Your task to perform on an android device: change alarm snooze length Image 0: 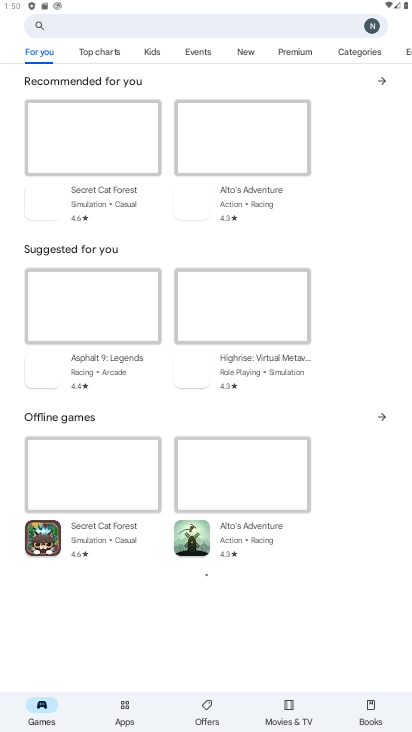
Step 0: drag from (219, 687) to (207, 91)
Your task to perform on an android device: change alarm snooze length Image 1: 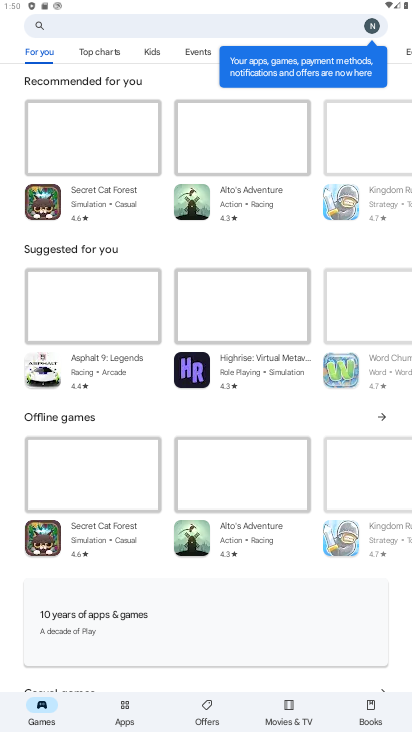
Step 1: press home button
Your task to perform on an android device: change alarm snooze length Image 2: 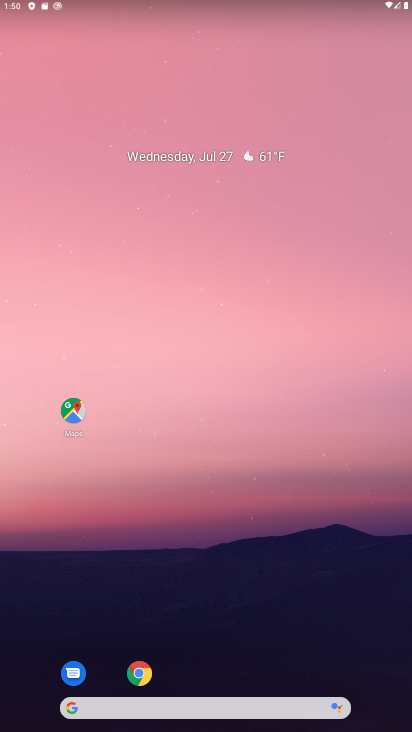
Step 2: drag from (193, 665) to (176, 156)
Your task to perform on an android device: change alarm snooze length Image 3: 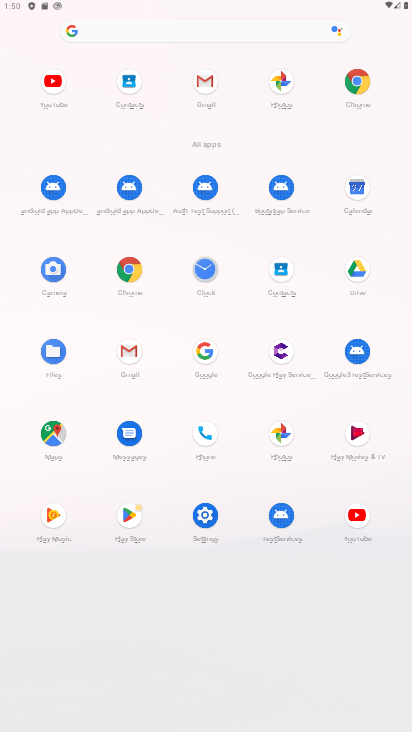
Step 3: click (205, 281)
Your task to perform on an android device: change alarm snooze length Image 4: 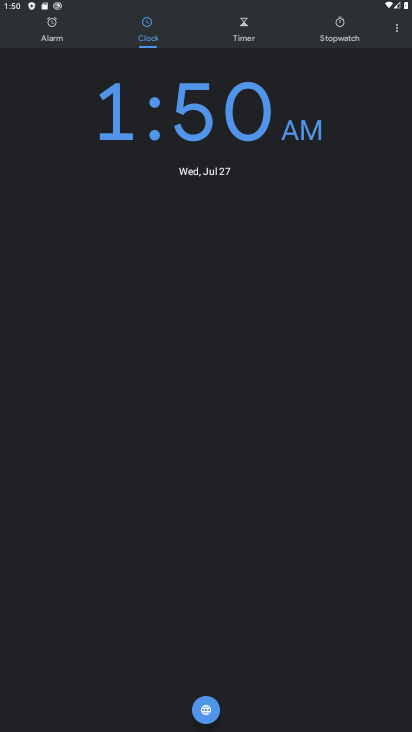
Step 4: click (409, 32)
Your task to perform on an android device: change alarm snooze length Image 5: 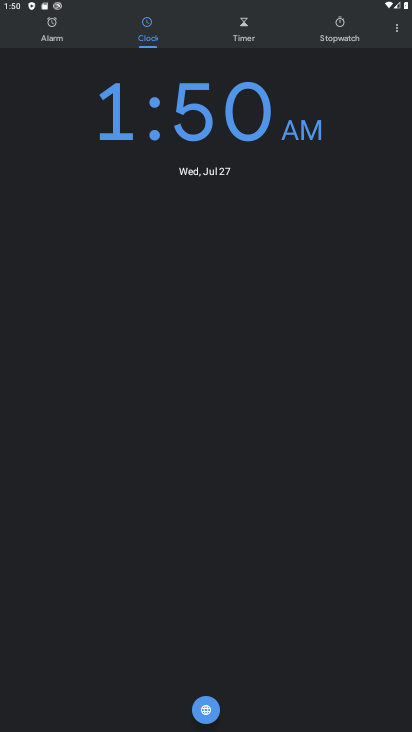
Step 5: click (400, 34)
Your task to perform on an android device: change alarm snooze length Image 6: 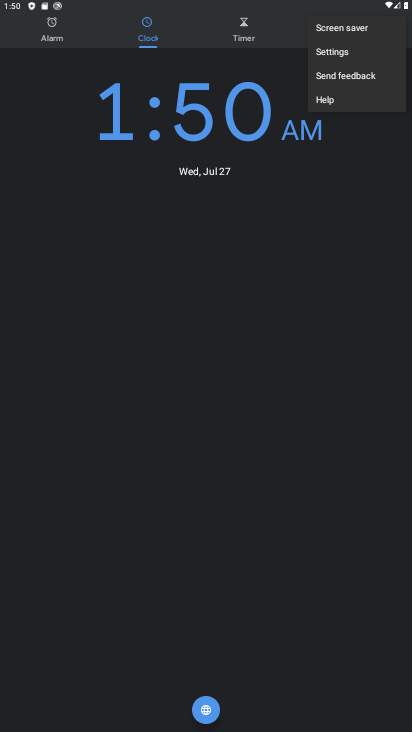
Step 6: click (368, 48)
Your task to perform on an android device: change alarm snooze length Image 7: 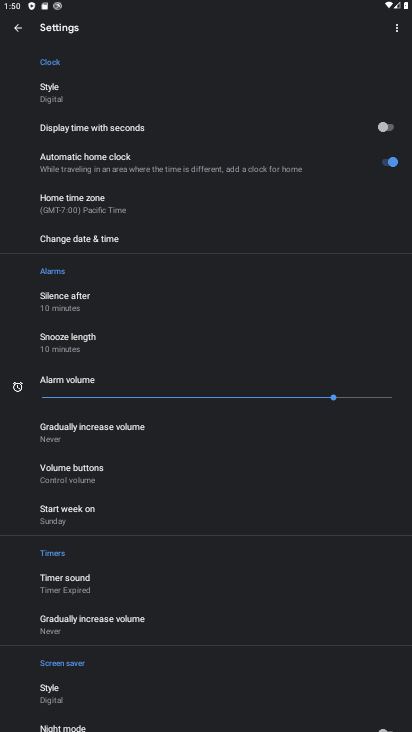
Step 7: click (105, 350)
Your task to perform on an android device: change alarm snooze length Image 8: 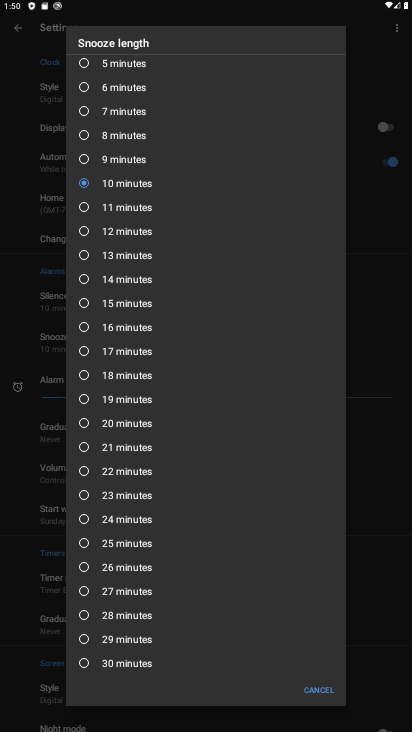
Step 8: click (168, 656)
Your task to perform on an android device: change alarm snooze length Image 9: 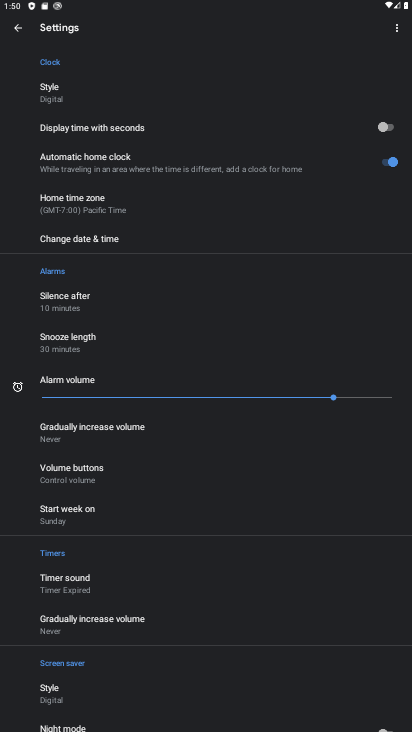
Step 9: task complete